Your task to perform on an android device: find snoozed emails in the gmail app Image 0: 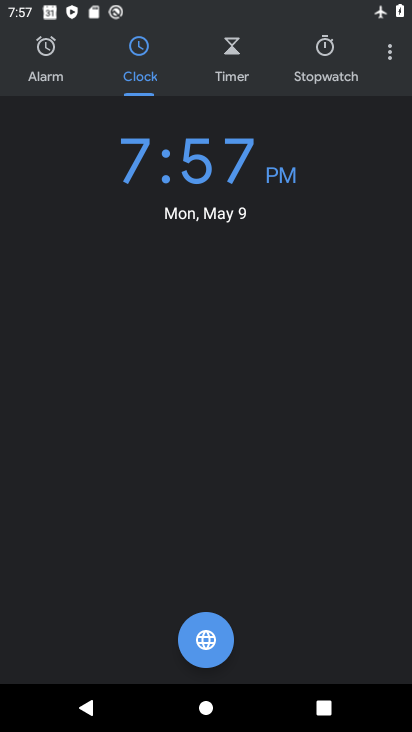
Step 0: press home button
Your task to perform on an android device: find snoozed emails in the gmail app Image 1: 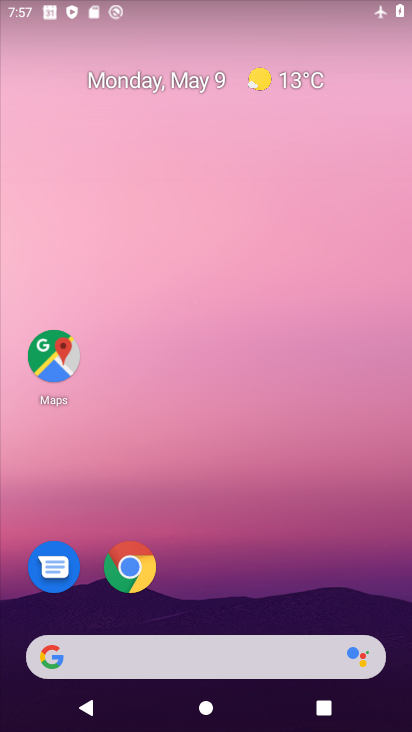
Step 1: drag from (222, 512) to (205, 103)
Your task to perform on an android device: find snoozed emails in the gmail app Image 2: 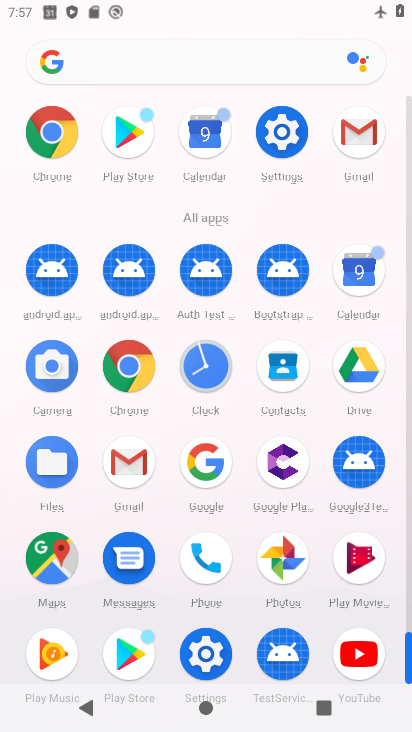
Step 2: click (358, 133)
Your task to perform on an android device: find snoozed emails in the gmail app Image 3: 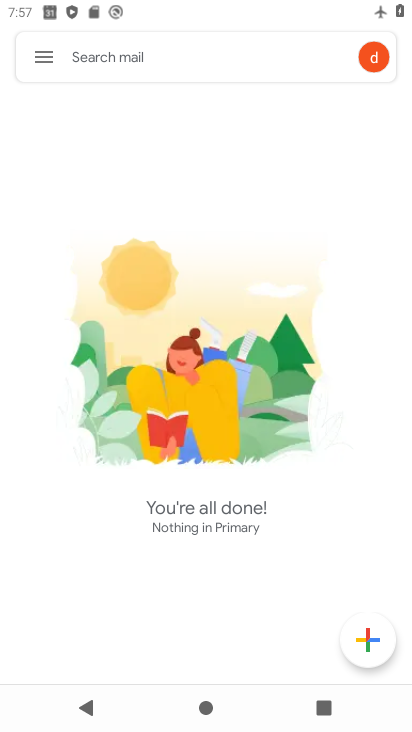
Step 3: click (44, 56)
Your task to perform on an android device: find snoozed emails in the gmail app Image 4: 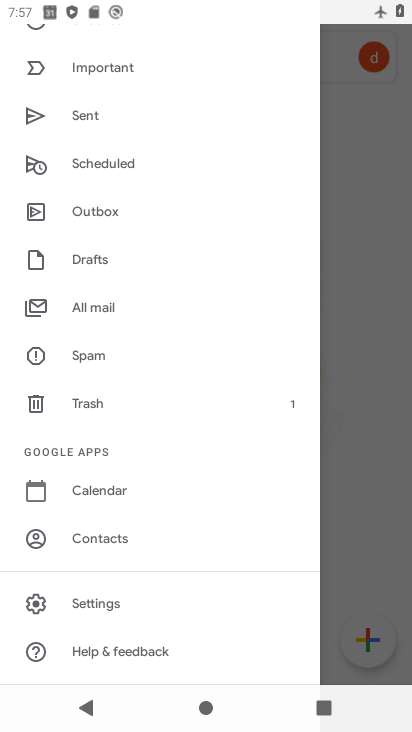
Step 4: drag from (174, 247) to (179, 564)
Your task to perform on an android device: find snoozed emails in the gmail app Image 5: 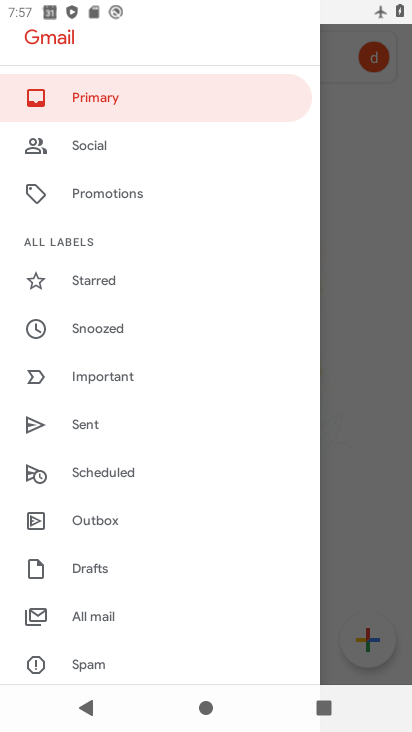
Step 5: click (97, 320)
Your task to perform on an android device: find snoozed emails in the gmail app Image 6: 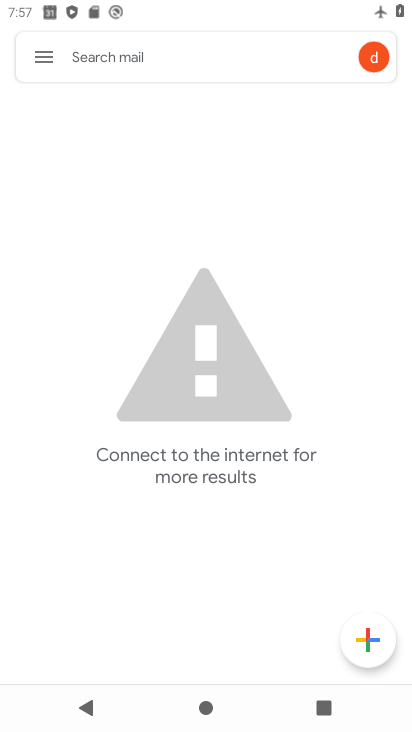
Step 6: task complete